Your task to perform on an android device: Go to ESPN.com Image 0: 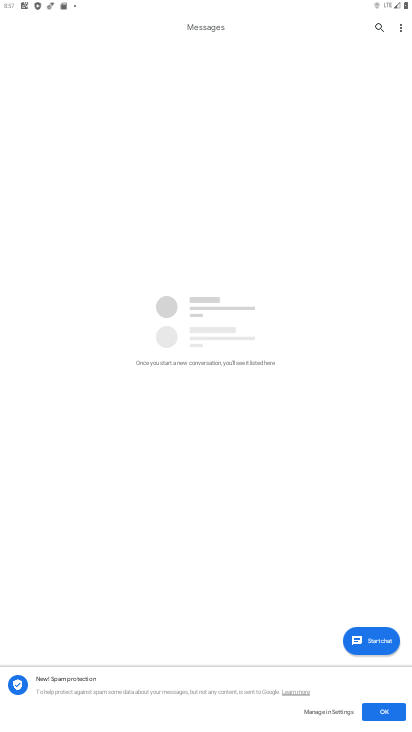
Step 0: press home button
Your task to perform on an android device: Go to ESPN.com Image 1: 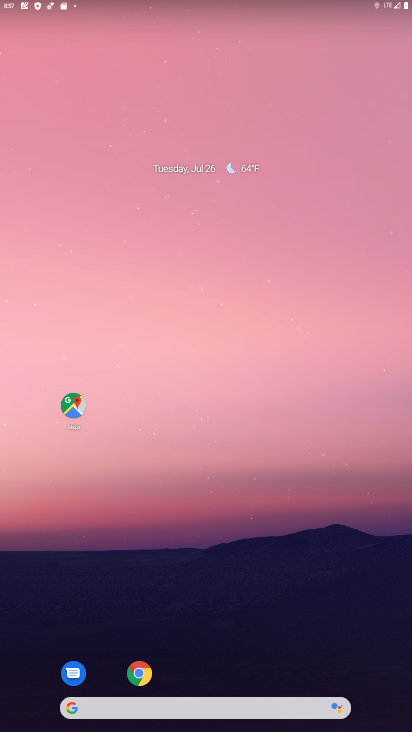
Step 1: drag from (222, 701) to (200, 110)
Your task to perform on an android device: Go to ESPN.com Image 2: 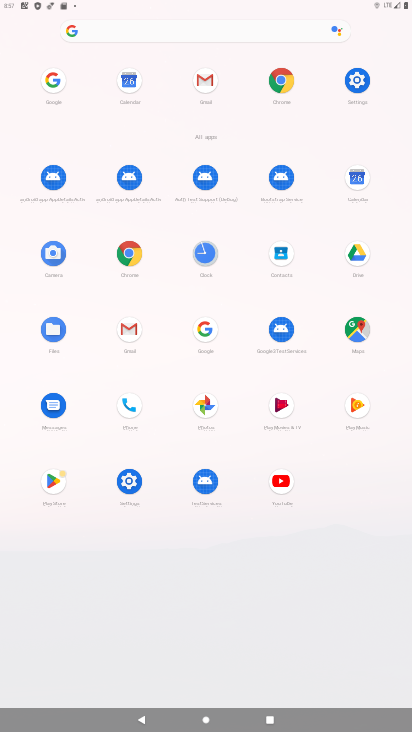
Step 2: click (138, 256)
Your task to perform on an android device: Go to ESPN.com Image 3: 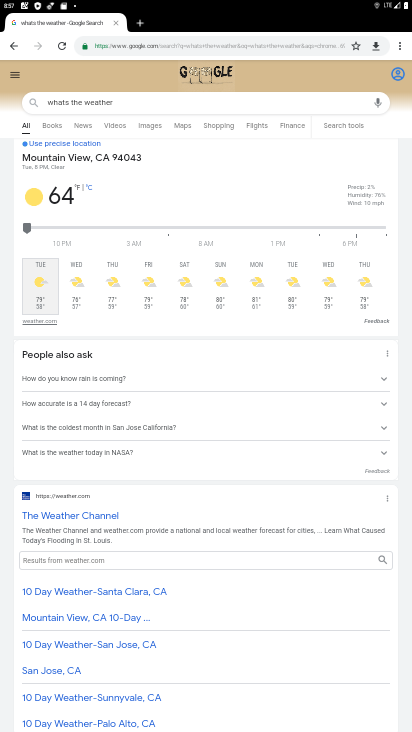
Step 3: click (219, 55)
Your task to perform on an android device: Go to ESPN.com Image 4: 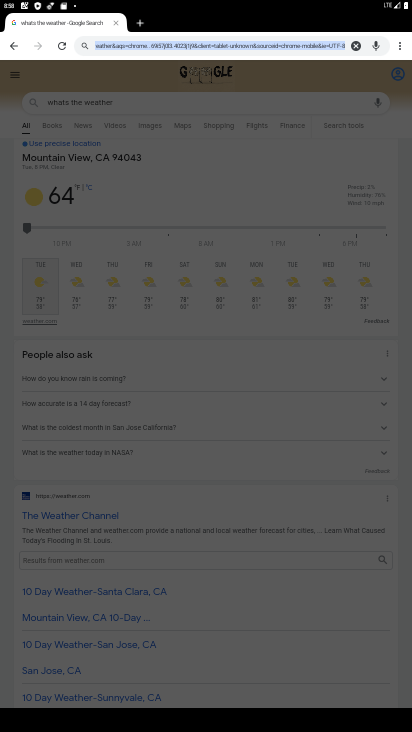
Step 4: type "espn.com"
Your task to perform on an android device: Go to ESPN.com Image 5: 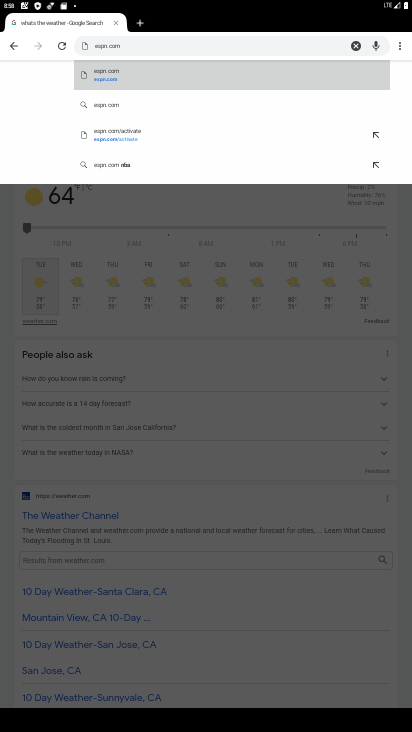
Step 5: click (151, 80)
Your task to perform on an android device: Go to ESPN.com Image 6: 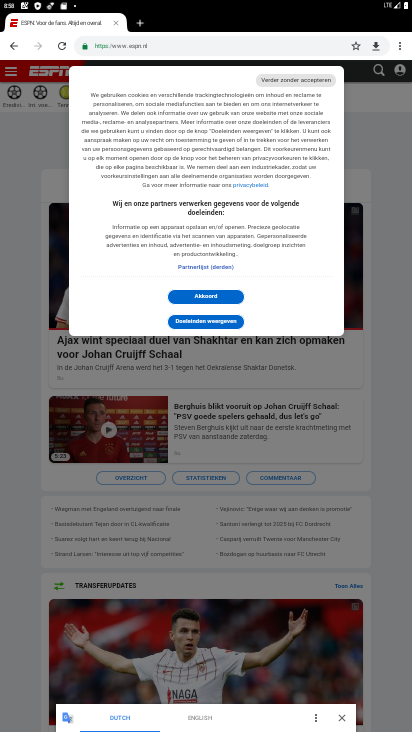
Step 6: press home button
Your task to perform on an android device: Go to ESPN.com Image 7: 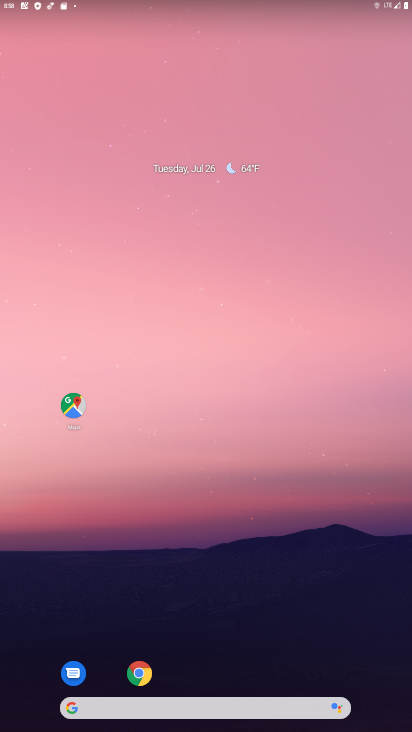
Step 7: drag from (284, 649) to (343, 152)
Your task to perform on an android device: Go to ESPN.com Image 8: 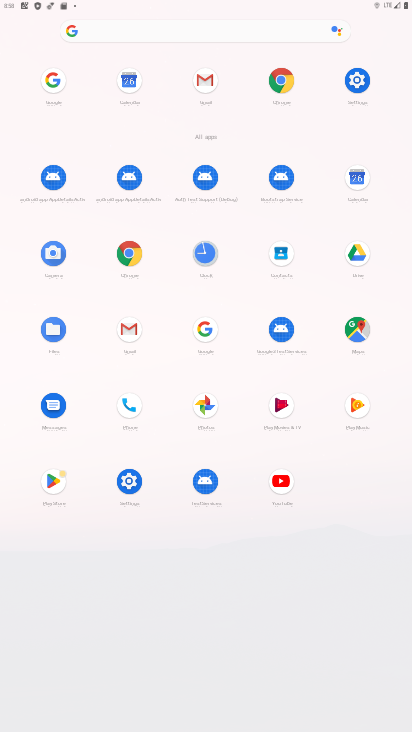
Step 8: click (133, 262)
Your task to perform on an android device: Go to ESPN.com Image 9: 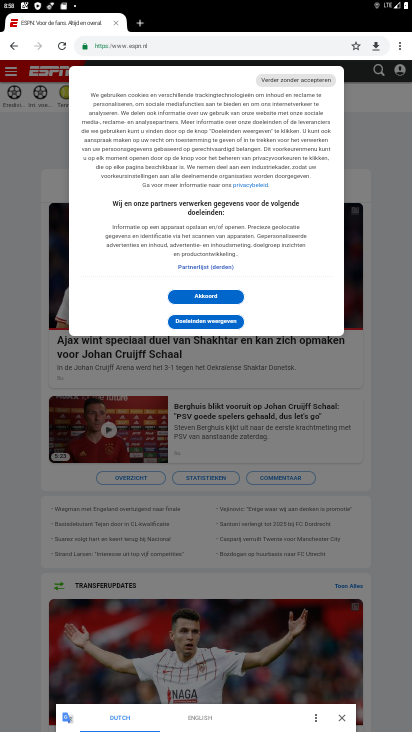
Step 9: task complete